Your task to perform on an android device: turn off sleep mode Image 0: 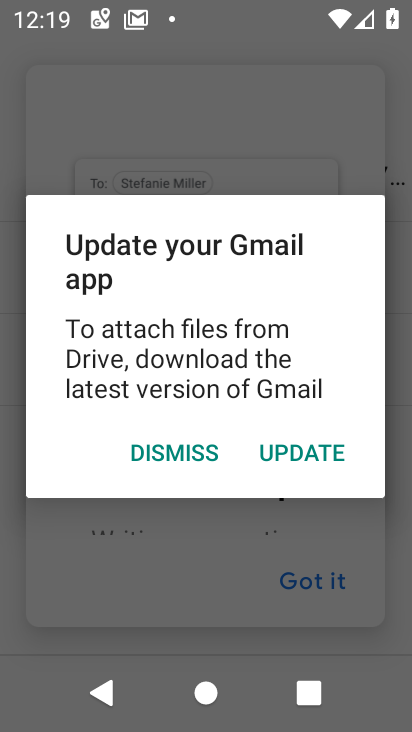
Step 0: press home button
Your task to perform on an android device: turn off sleep mode Image 1: 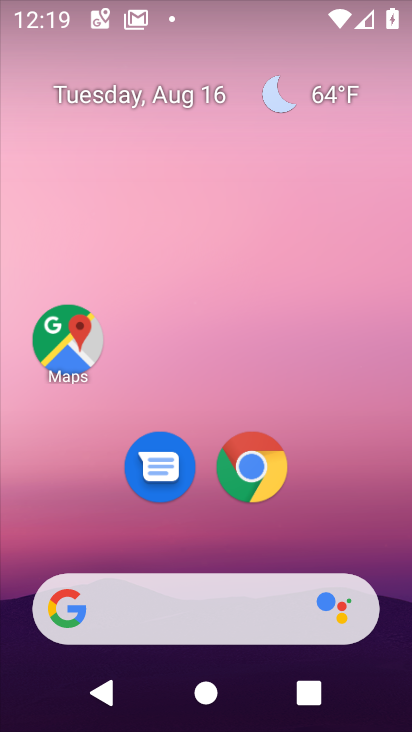
Step 1: drag from (352, 403) to (372, 79)
Your task to perform on an android device: turn off sleep mode Image 2: 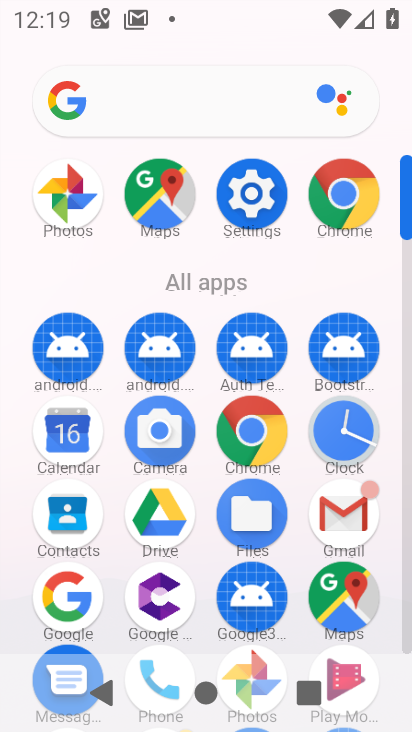
Step 2: click (259, 191)
Your task to perform on an android device: turn off sleep mode Image 3: 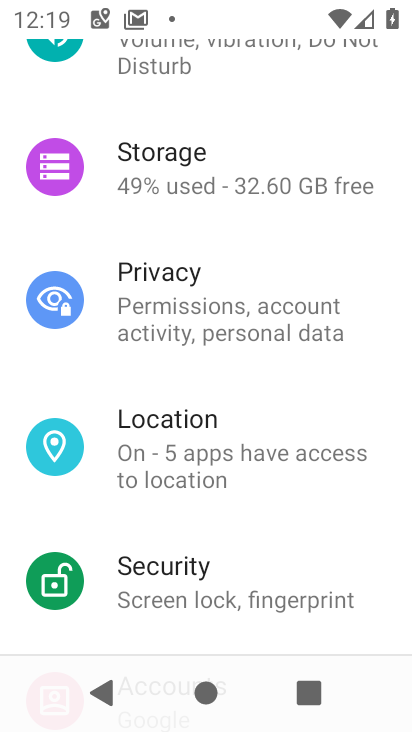
Step 3: drag from (380, 250) to (386, 365)
Your task to perform on an android device: turn off sleep mode Image 4: 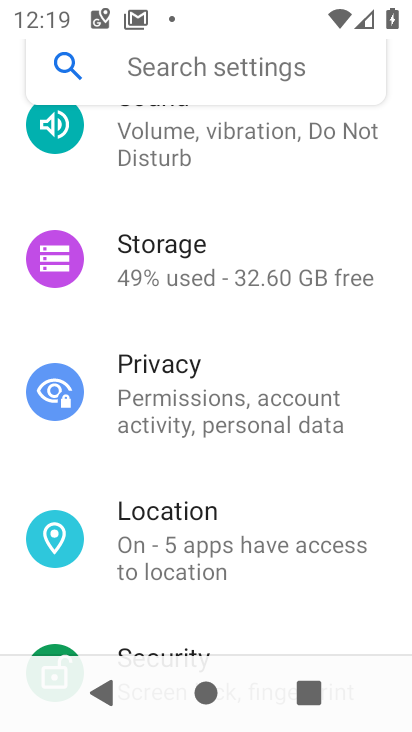
Step 4: drag from (381, 207) to (382, 316)
Your task to perform on an android device: turn off sleep mode Image 5: 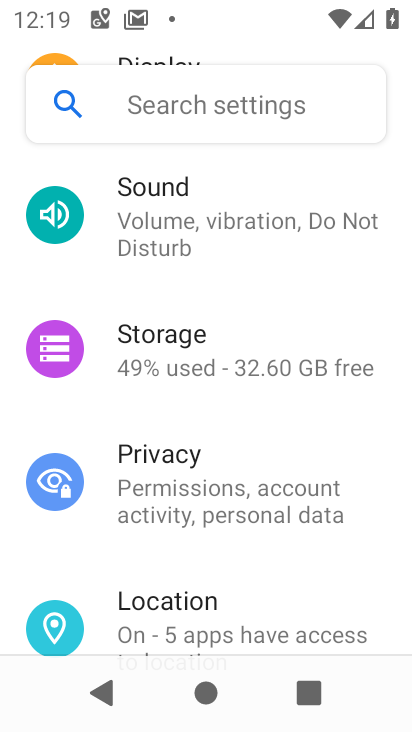
Step 5: drag from (383, 156) to (387, 291)
Your task to perform on an android device: turn off sleep mode Image 6: 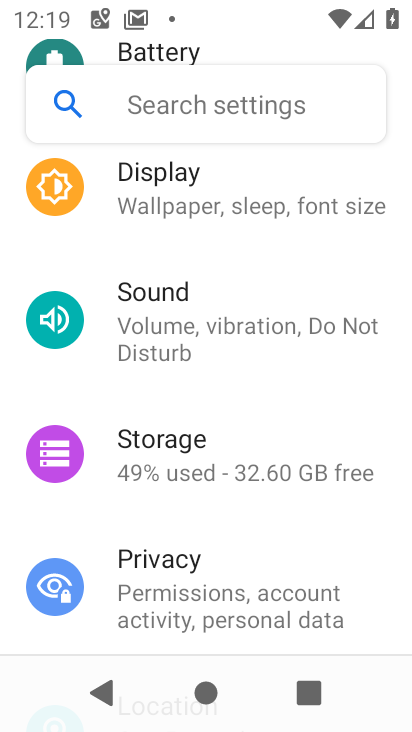
Step 6: drag from (381, 153) to (384, 317)
Your task to perform on an android device: turn off sleep mode Image 7: 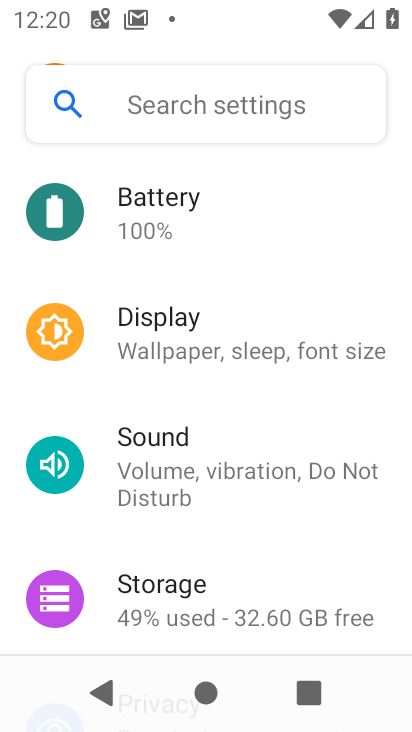
Step 7: drag from (386, 189) to (393, 346)
Your task to perform on an android device: turn off sleep mode Image 8: 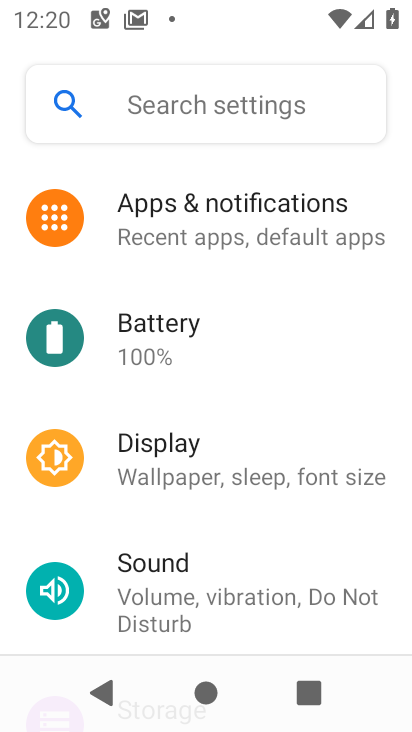
Step 8: click (320, 460)
Your task to perform on an android device: turn off sleep mode Image 9: 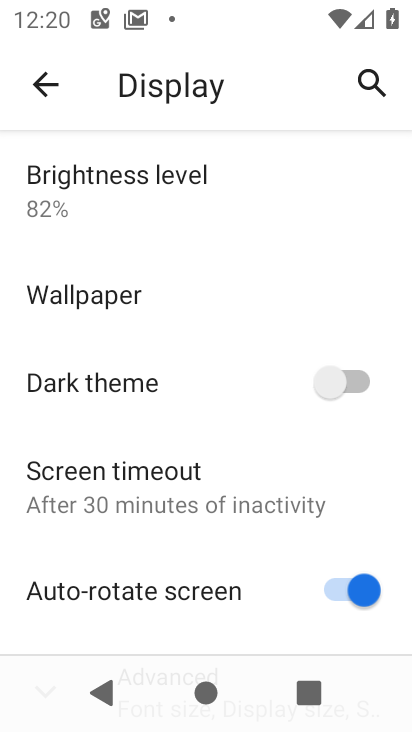
Step 9: drag from (281, 516) to (283, 439)
Your task to perform on an android device: turn off sleep mode Image 10: 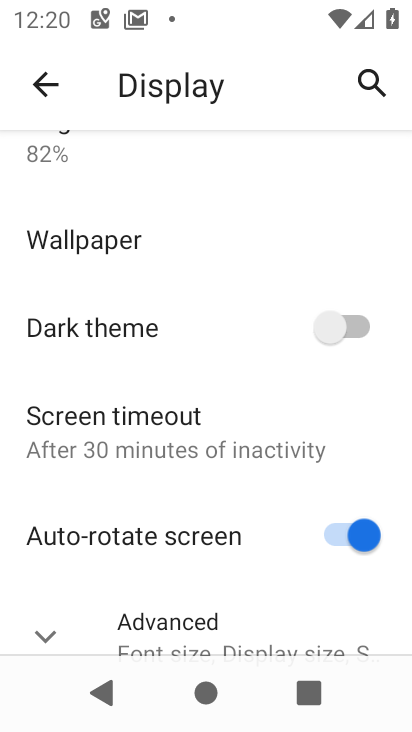
Step 10: drag from (272, 523) to (283, 397)
Your task to perform on an android device: turn off sleep mode Image 11: 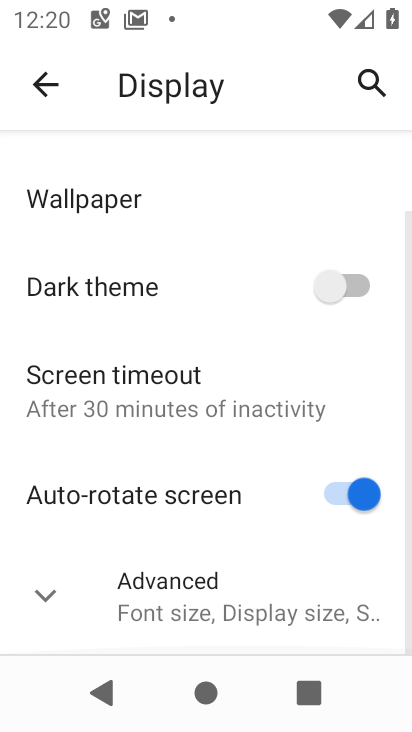
Step 11: click (275, 571)
Your task to perform on an android device: turn off sleep mode Image 12: 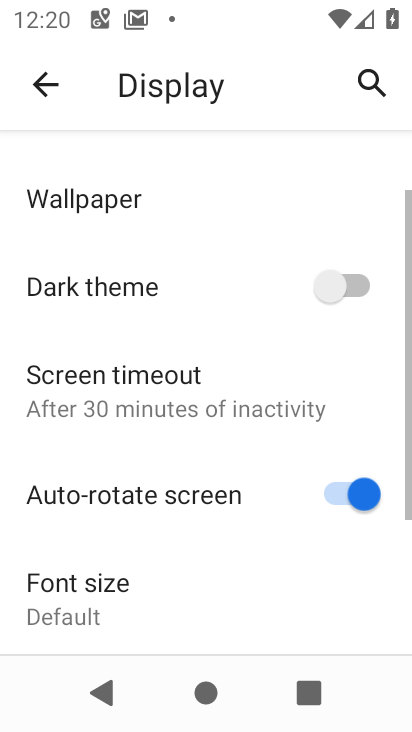
Step 12: task complete